Your task to perform on an android device: clear all cookies in the chrome app Image 0: 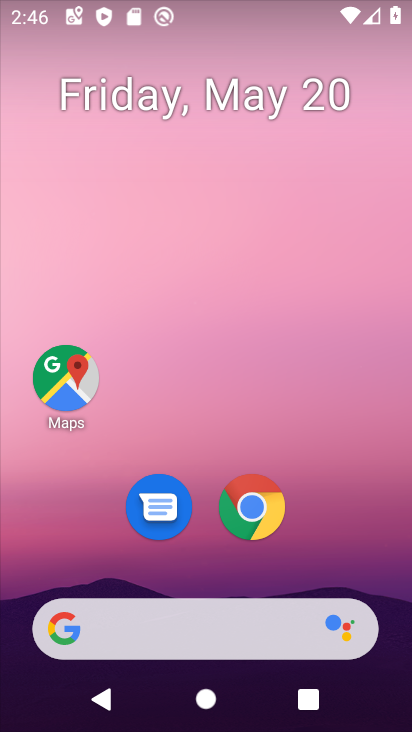
Step 0: click (259, 506)
Your task to perform on an android device: clear all cookies in the chrome app Image 1: 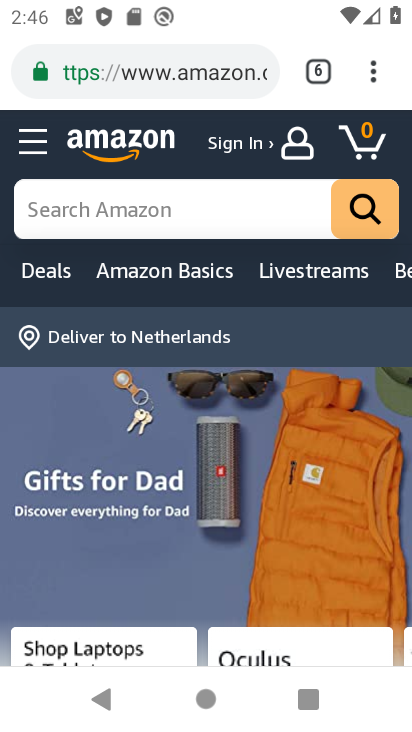
Step 1: click (375, 78)
Your task to perform on an android device: clear all cookies in the chrome app Image 2: 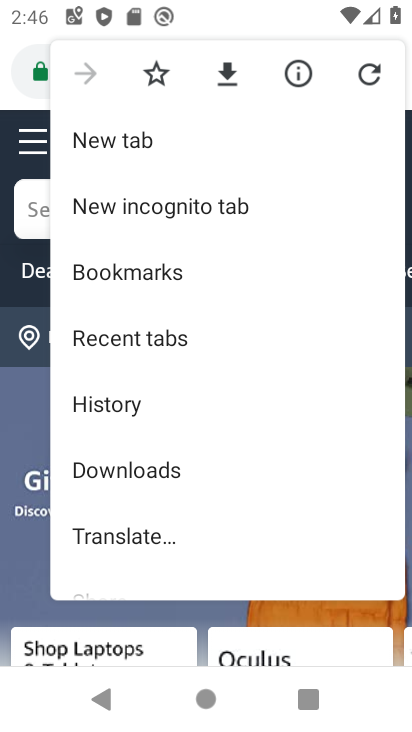
Step 2: drag from (145, 494) to (147, 155)
Your task to perform on an android device: clear all cookies in the chrome app Image 3: 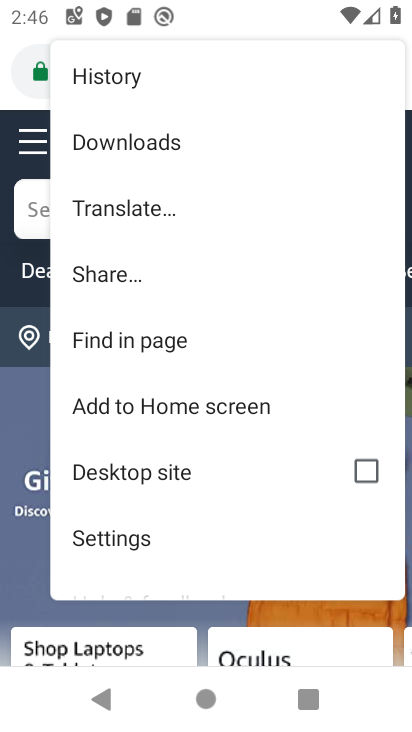
Step 3: click (130, 528)
Your task to perform on an android device: clear all cookies in the chrome app Image 4: 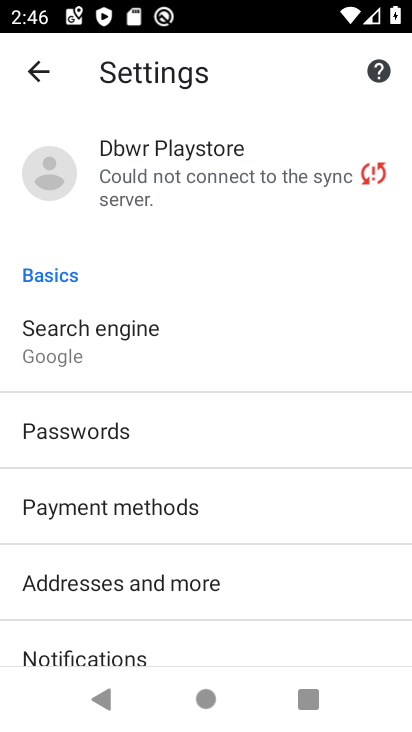
Step 4: drag from (140, 631) to (156, 411)
Your task to perform on an android device: clear all cookies in the chrome app Image 5: 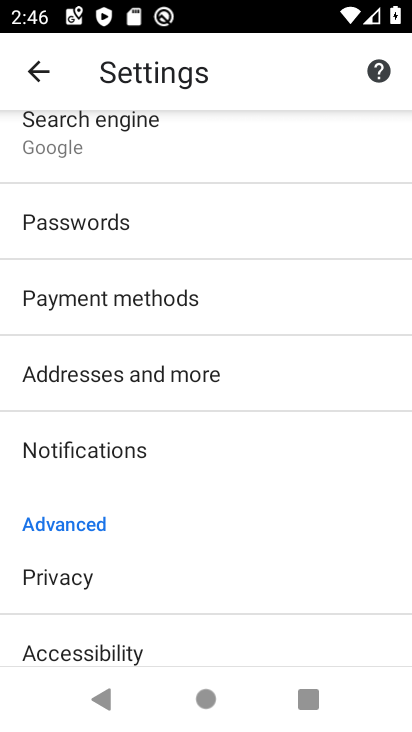
Step 5: drag from (98, 608) to (118, 271)
Your task to perform on an android device: clear all cookies in the chrome app Image 6: 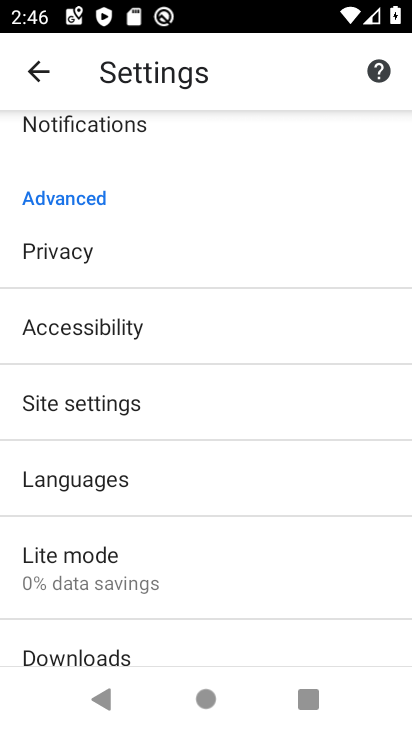
Step 6: click (55, 251)
Your task to perform on an android device: clear all cookies in the chrome app Image 7: 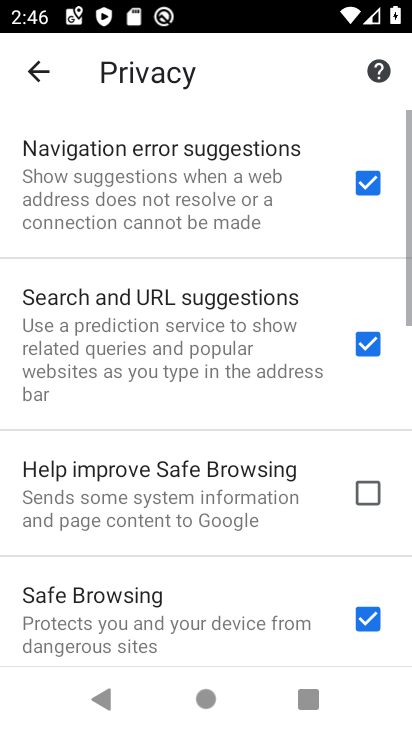
Step 7: drag from (217, 630) to (187, 170)
Your task to perform on an android device: clear all cookies in the chrome app Image 8: 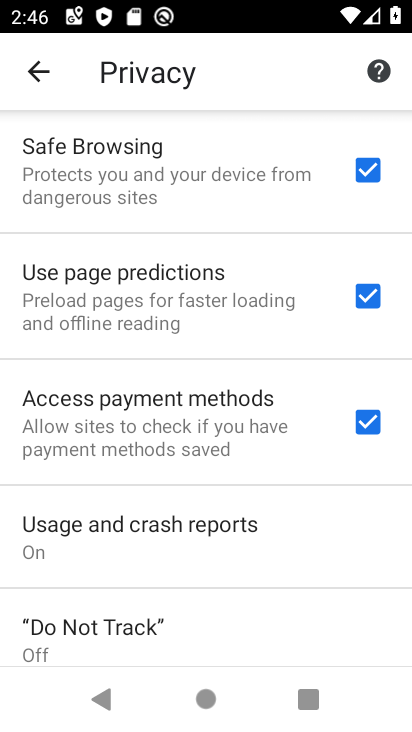
Step 8: drag from (214, 631) to (210, 190)
Your task to perform on an android device: clear all cookies in the chrome app Image 9: 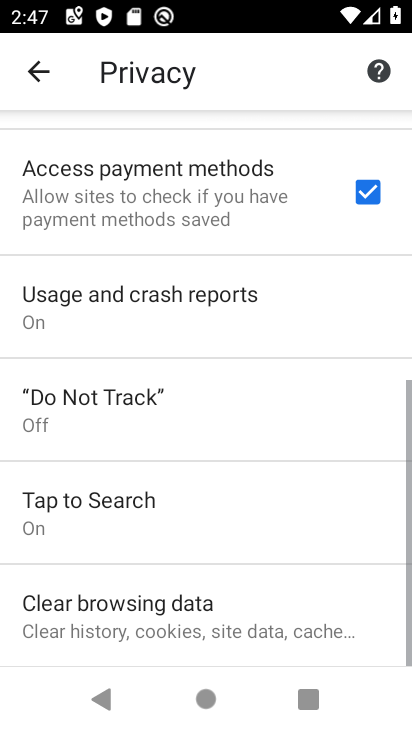
Step 9: click (227, 603)
Your task to perform on an android device: clear all cookies in the chrome app Image 10: 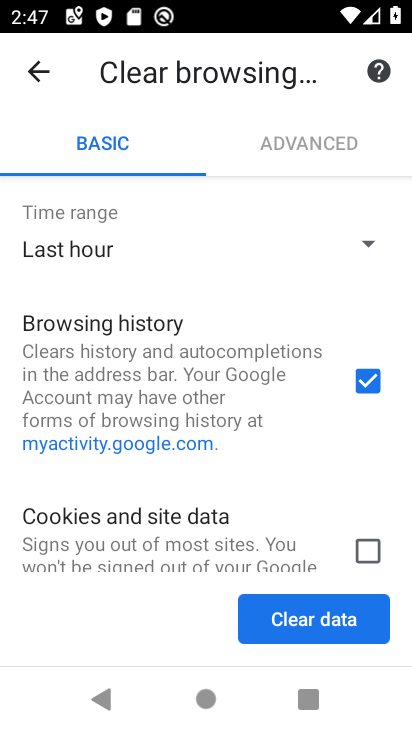
Step 10: drag from (278, 521) to (282, 483)
Your task to perform on an android device: clear all cookies in the chrome app Image 11: 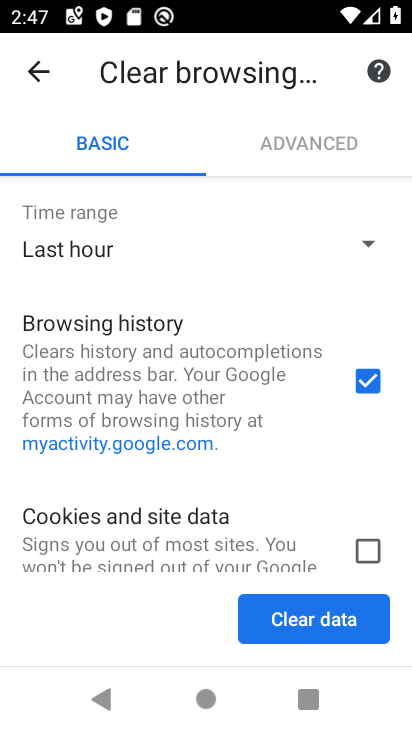
Step 11: click (314, 614)
Your task to perform on an android device: clear all cookies in the chrome app Image 12: 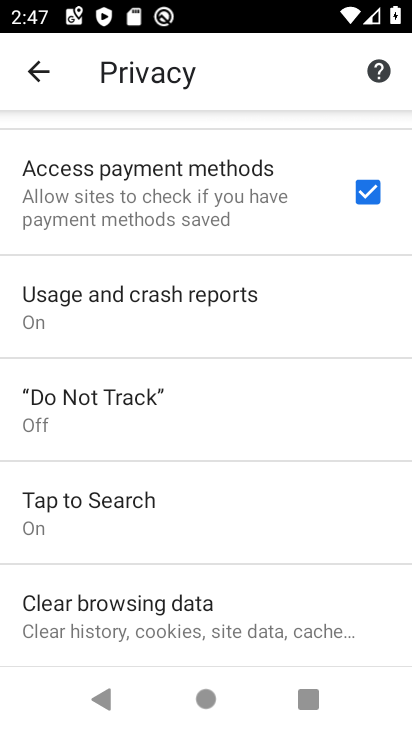
Step 12: task complete